Your task to perform on an android device: turn off translation in the chrome app Image 0: 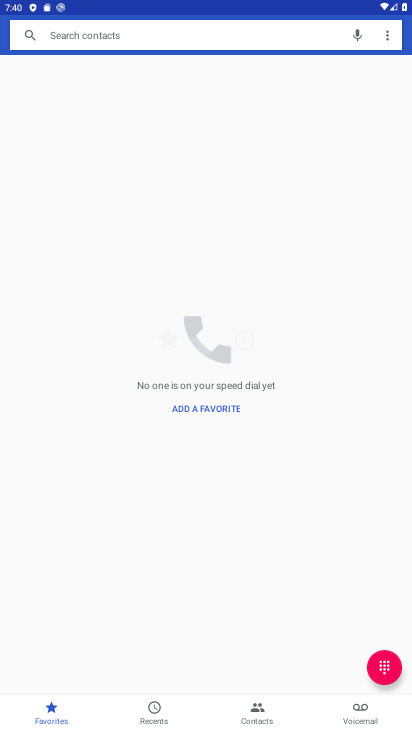
Step 0: press home button
Your task to perform on an android device: turn off translation in the chrome app Image 1: 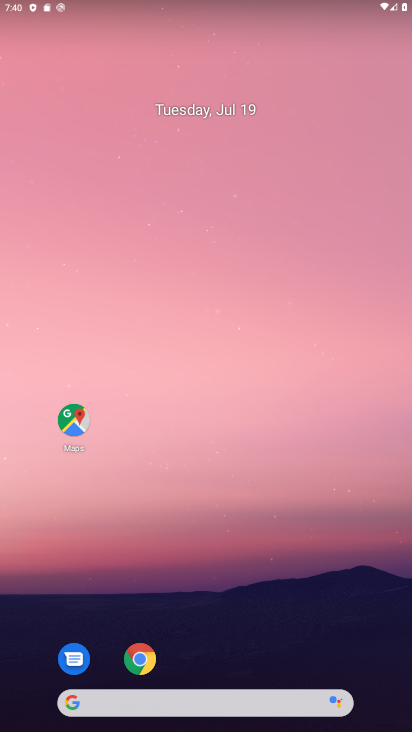
Step 1: click (144, 669)
Your task to perform on an android device: turn off translation in the chrome app Image 2: 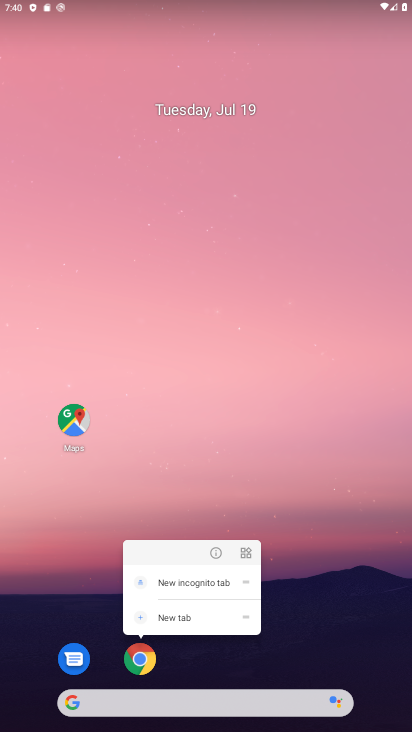
Step 2: click (144, 660)
Your task to perform on an android device: turn off translation in the chrome app Image 3: 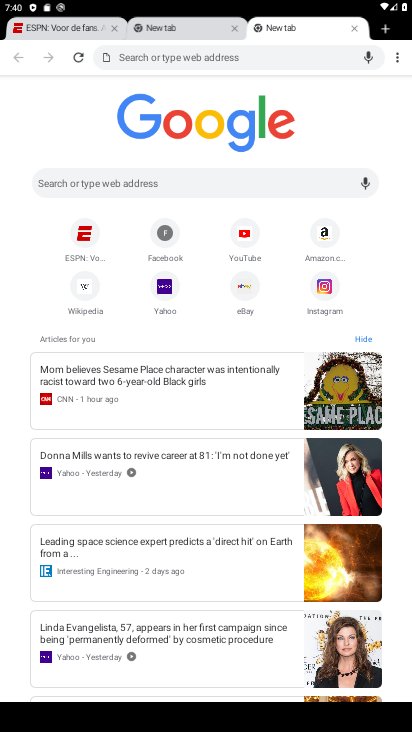
Step 3: click (398, 61)
Your task to perform on an android device: turn off translation in the chrome app Image 4: 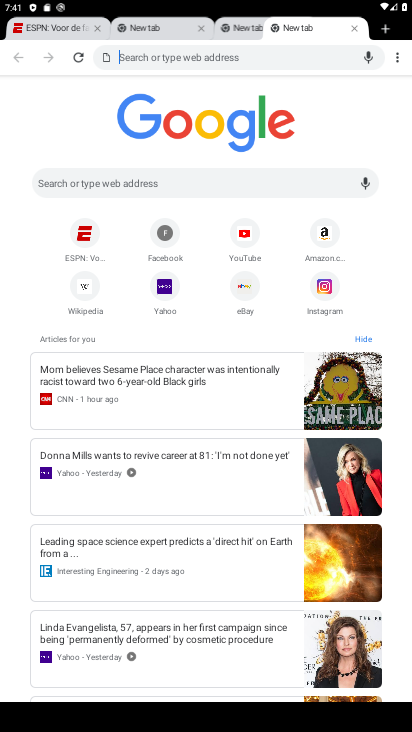
Step 4: click (388, 51)
Your task to perform on an android device: turn off translation in the chrome app Image 5: 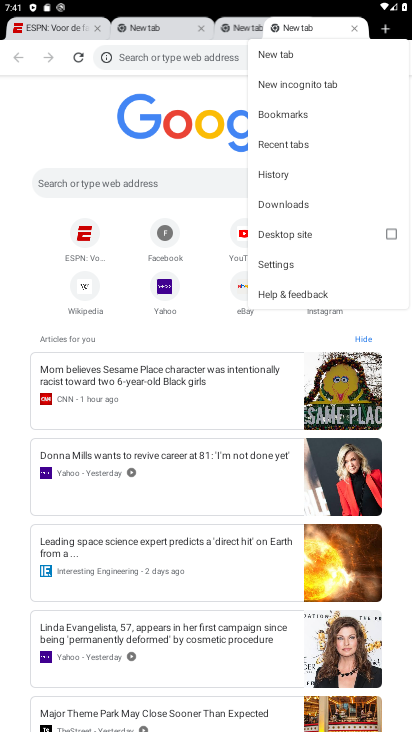
Step 5: click (292, 269)
Your task to perform on an android device: turn off translation in the chrome app Image 6: 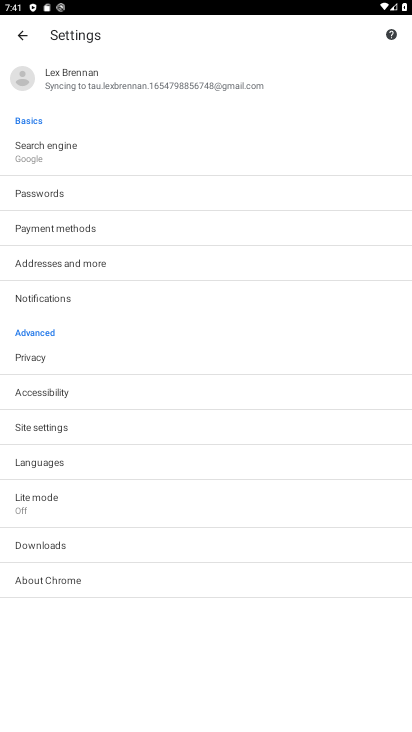
Step 6: click (26, 467)
Your task to perform on an android device: turn off translation in the chrome app Image 7: 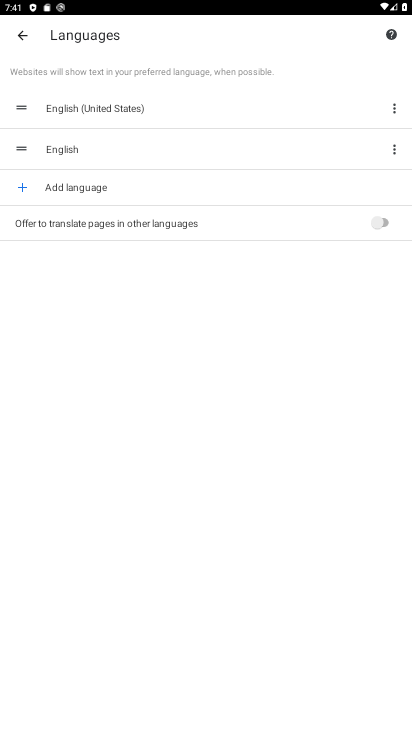
Step 7: task complete